Your task to perform on an android device: Open eBay Image 0: 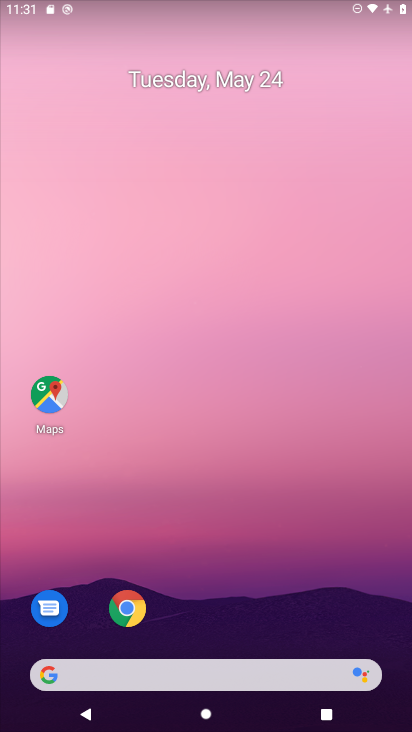
Step 0: click (131, 610)
Your task to perform on an android device: Open eBay Image 1: 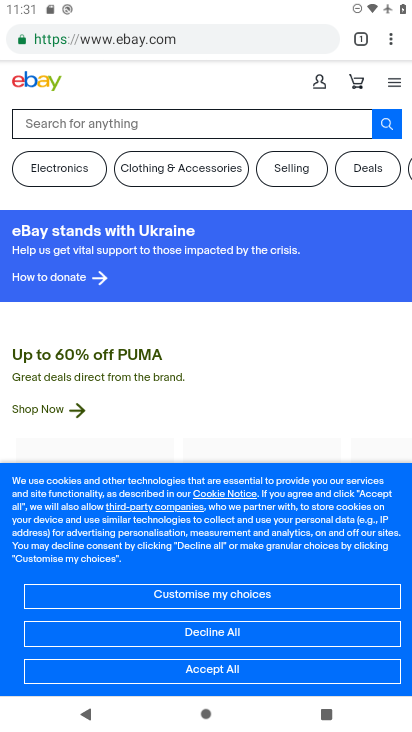
Step 1: task complete